Your task to perform on an android device: Open CNN.com Image 0: 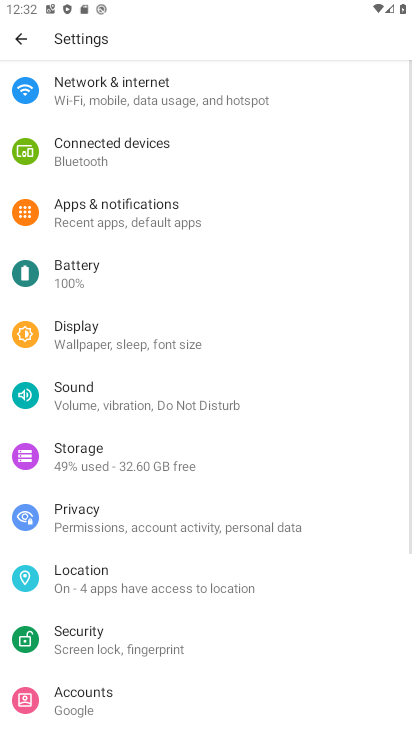
Step 0: press home button
Your task to perform on an android device: Open CNN.com Image 1: 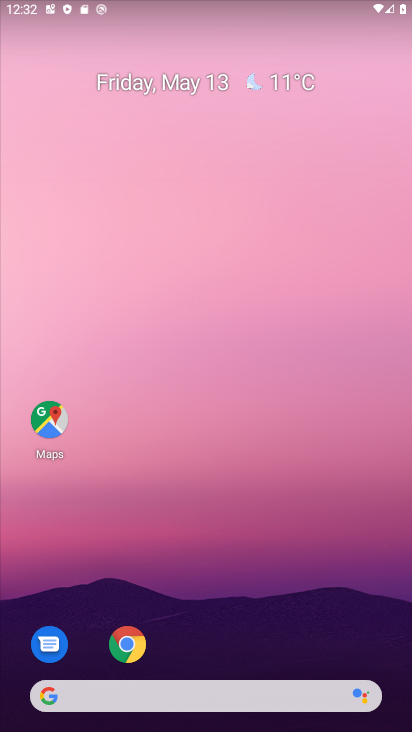
Step 1: drag from (200, 730) to (194, 88)
Your task to perform on an android device: Open CNN.com Image 2: 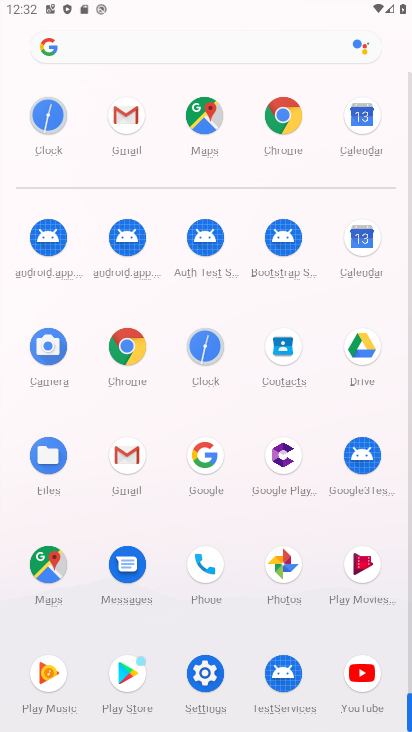
Step 2: click (282, 113)
Your task to perform on an android device: Open CNN.com Image 3: 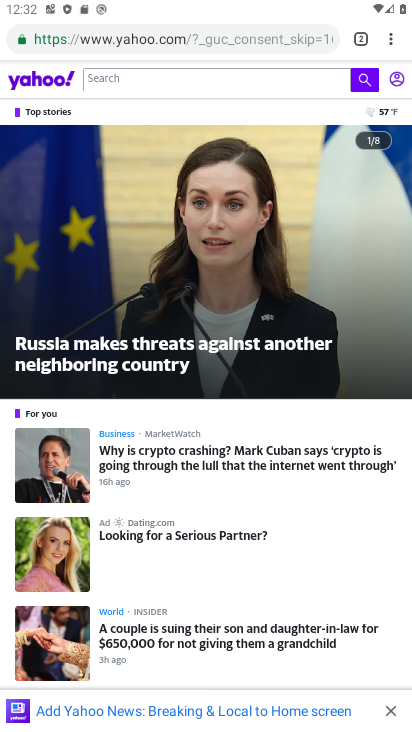
Step 3: click (393, 41)
Your task to perform on an android device: Open CNN.com Image 4: 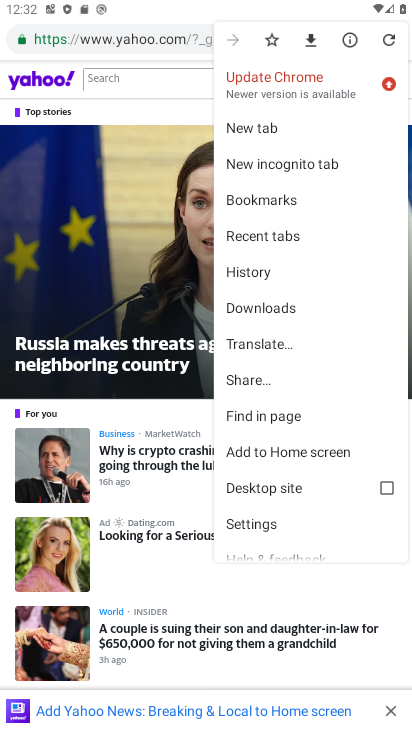
Step 4: click (257, 124)
Your task to perform on an android device: Open CNN.com Image 5: 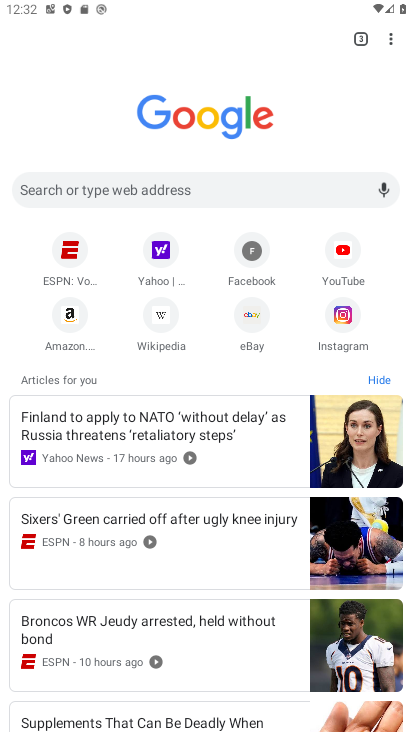
Step 5: click (159, 188)
Your task to perform on an android device: Open CNN.com Image 6: 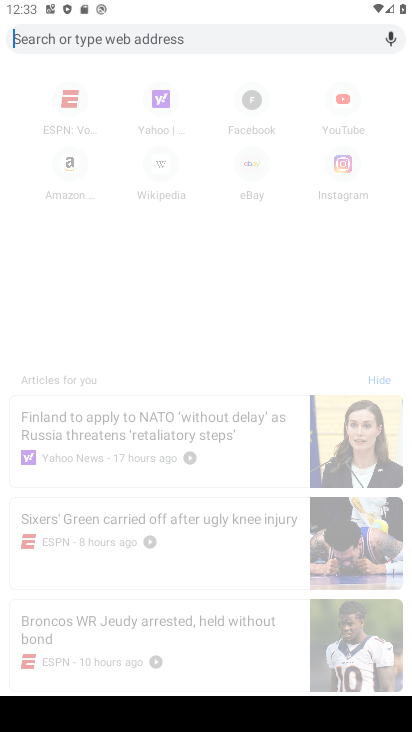
Step 6: type "CNN.com"
Your task to perform on an android device: Open CNN.com Image 7: 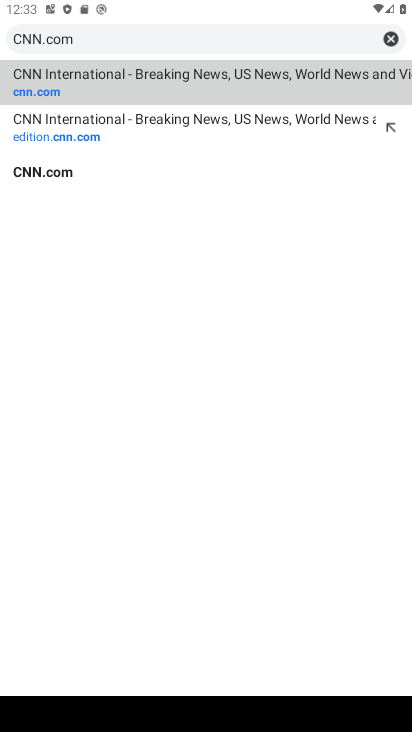
Step 7: click (65, 74)
Your task to perform on an android device: Open CNN.com Image 8: 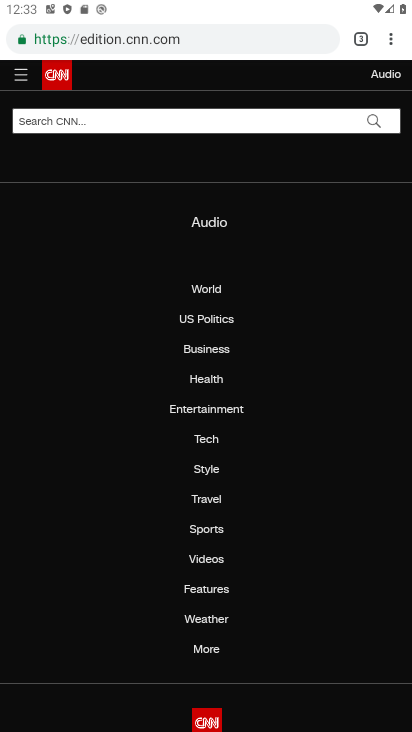
Step 8: task complete